Your task to perform on an android device: Open calendar and show me the fourth week of next month Image 0: 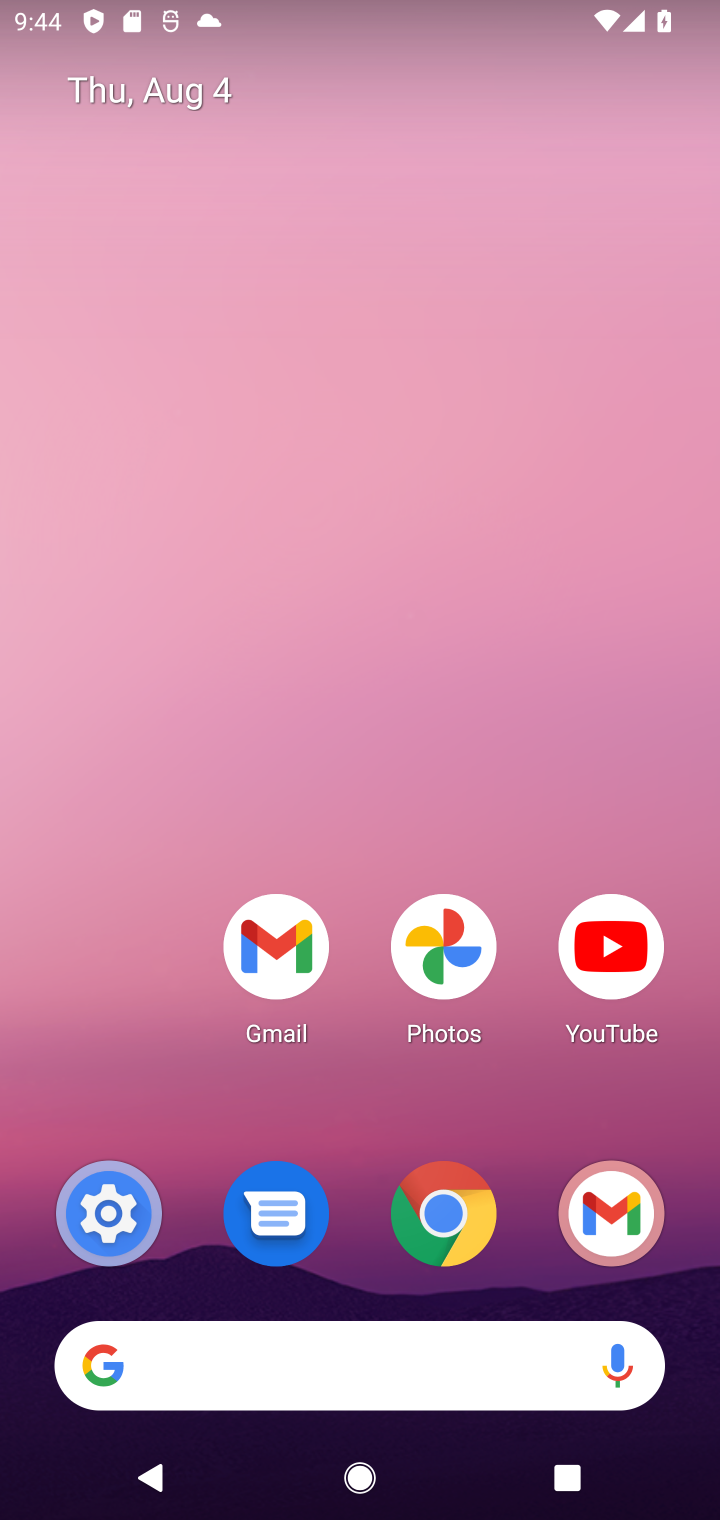
Step 0: press home button
Your task to perform on an android device: Open calendar and show me the fourth week of next month Image 1: 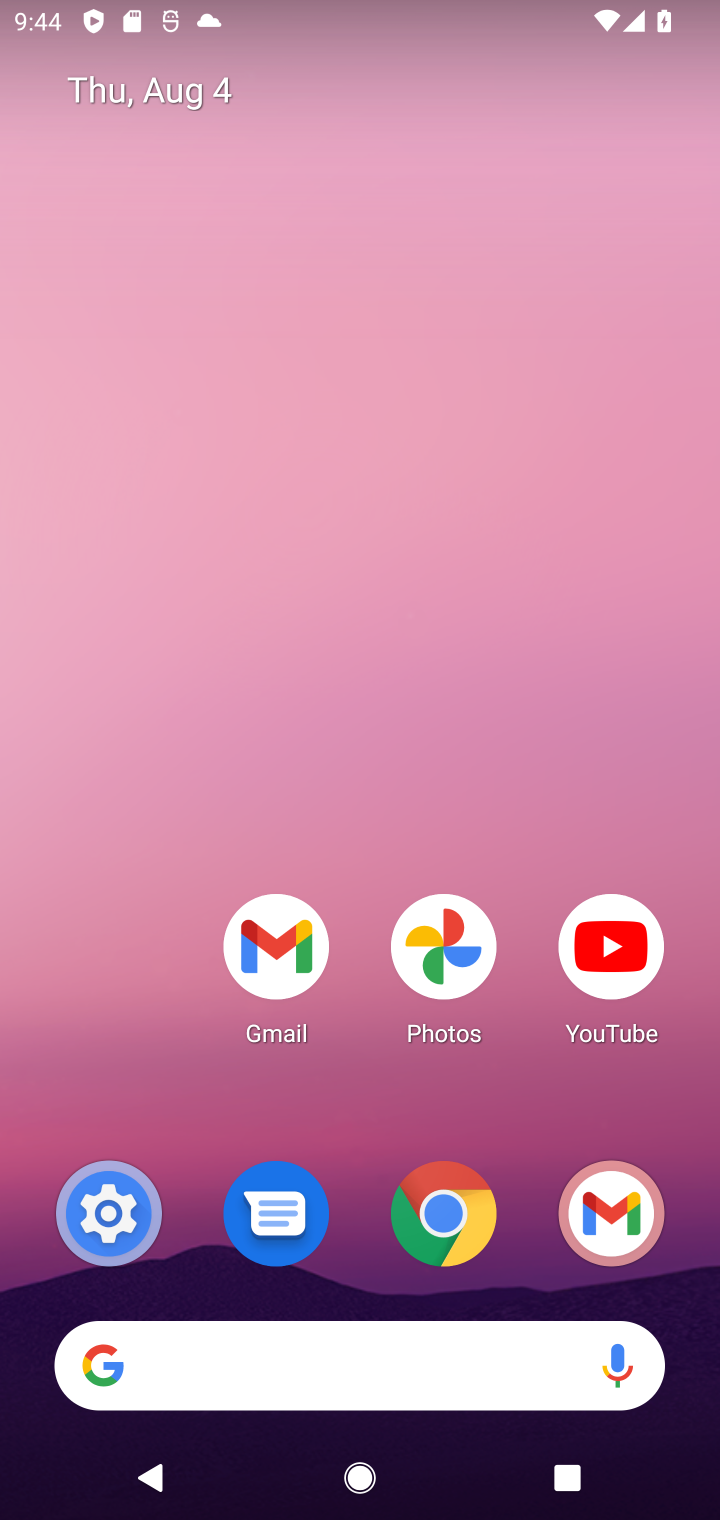
Step 1: drag from (348, 1147) to (348, 19)
Your task to perform on an android device: Open calendar and show me the fourth week of next month Image 2: 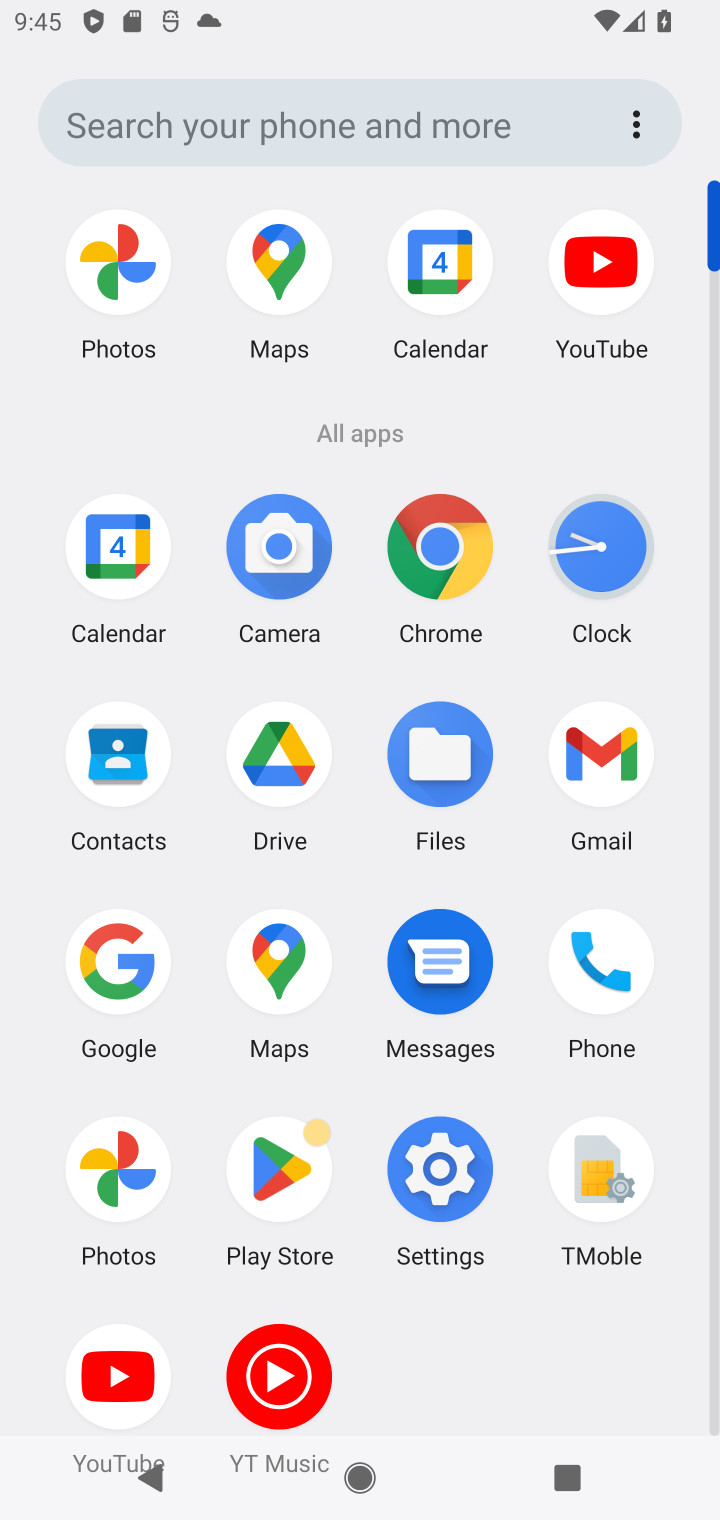
Step 2: click (101, 540)
Your task to perform on an android device: Open calendar and show me the fourth week of next month Image 3: 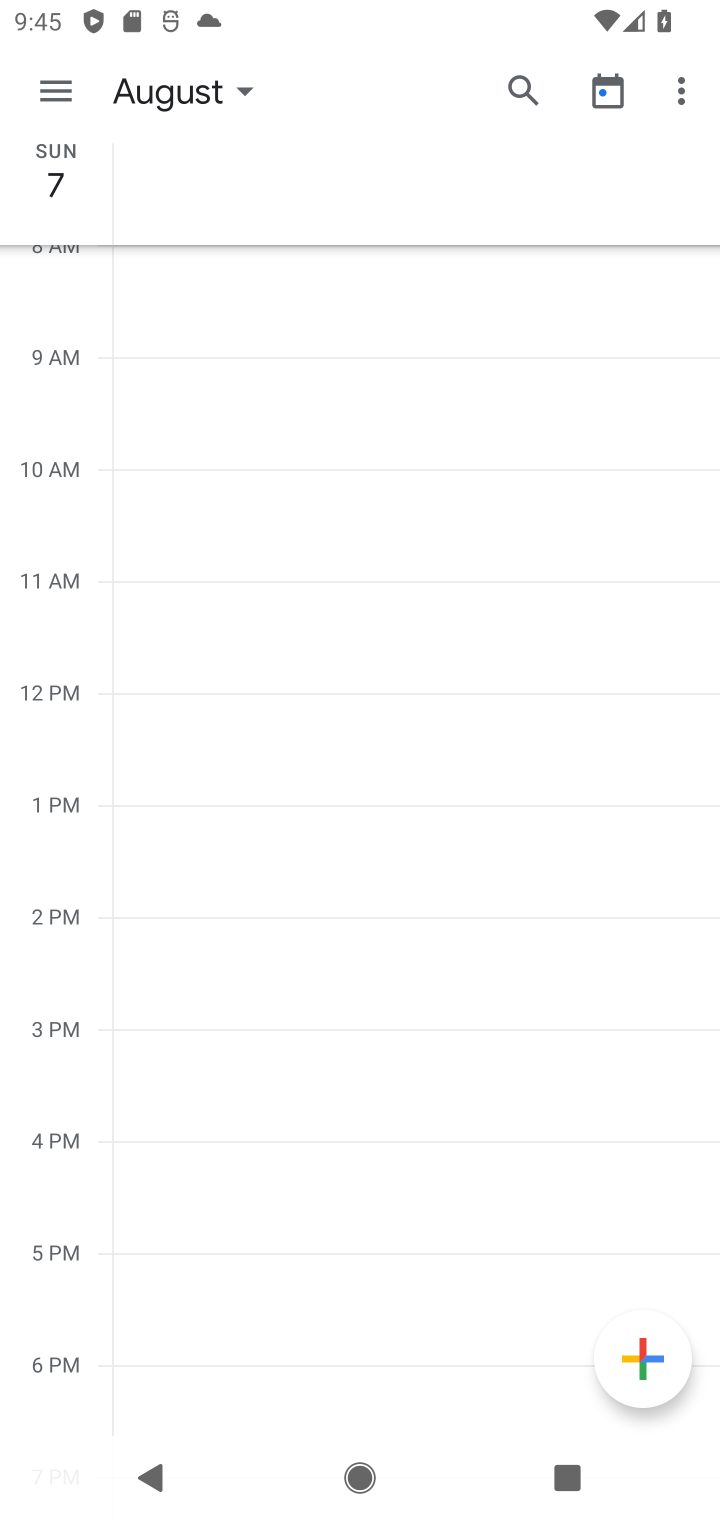
Step 3: click (234, 94)
Your task to perform on an android device: Open calendar and show me the fourth week of next month Image 4: 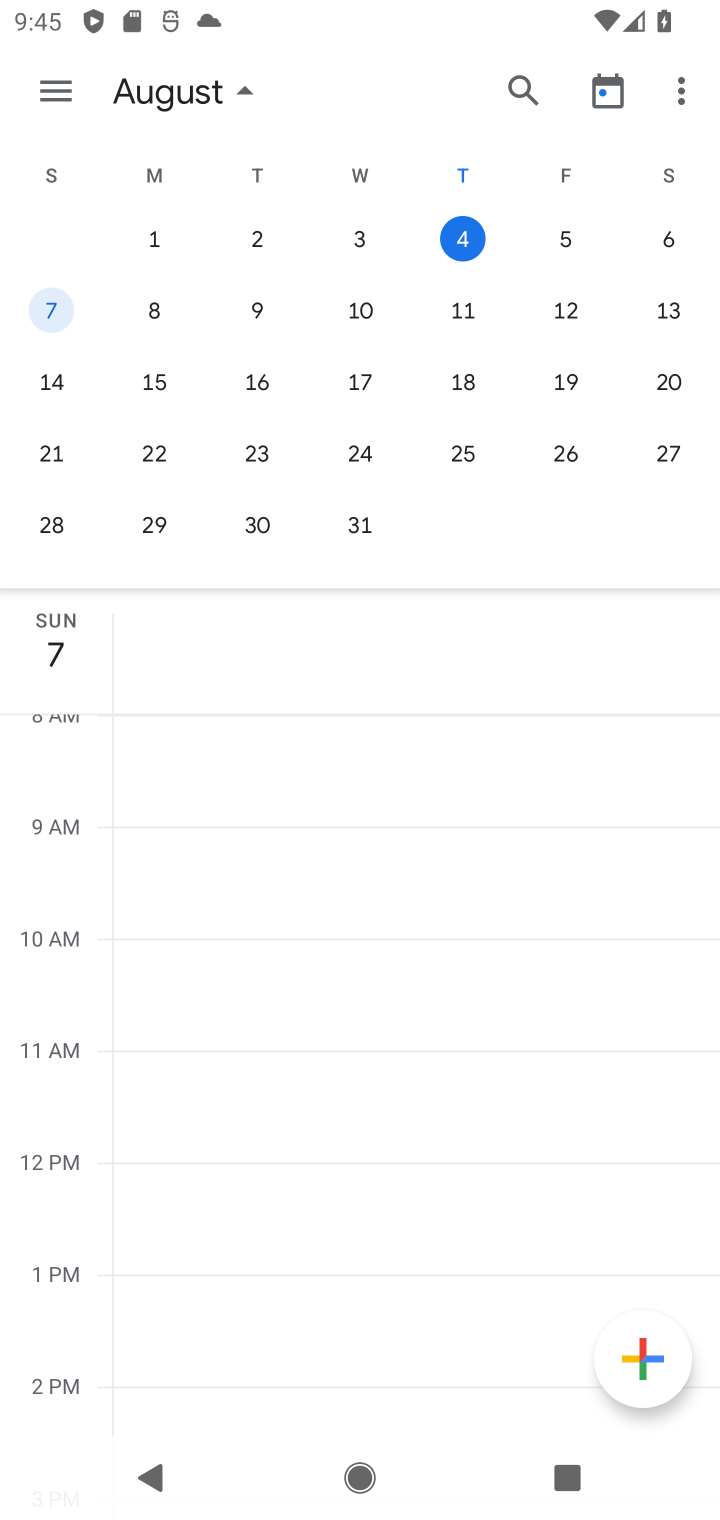
Step 4: drag from (561, 358) to (25, 236)
Your task to perform on an android device: Open calendar and show me the fourth week of next month Image 5: 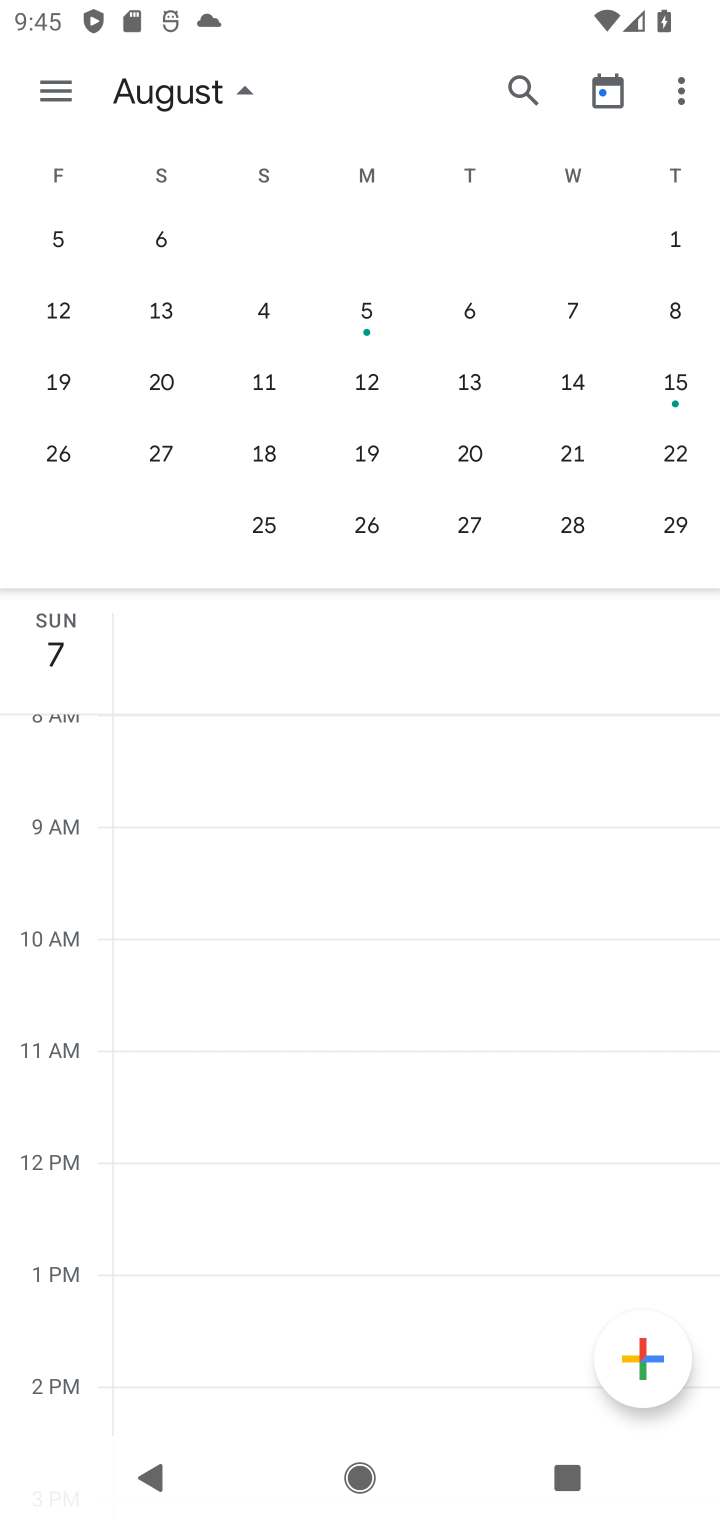
Step 5: click (55, 100)
Your task to perform on an android device: Open calendar and show me the fourth week of next month Image 6: 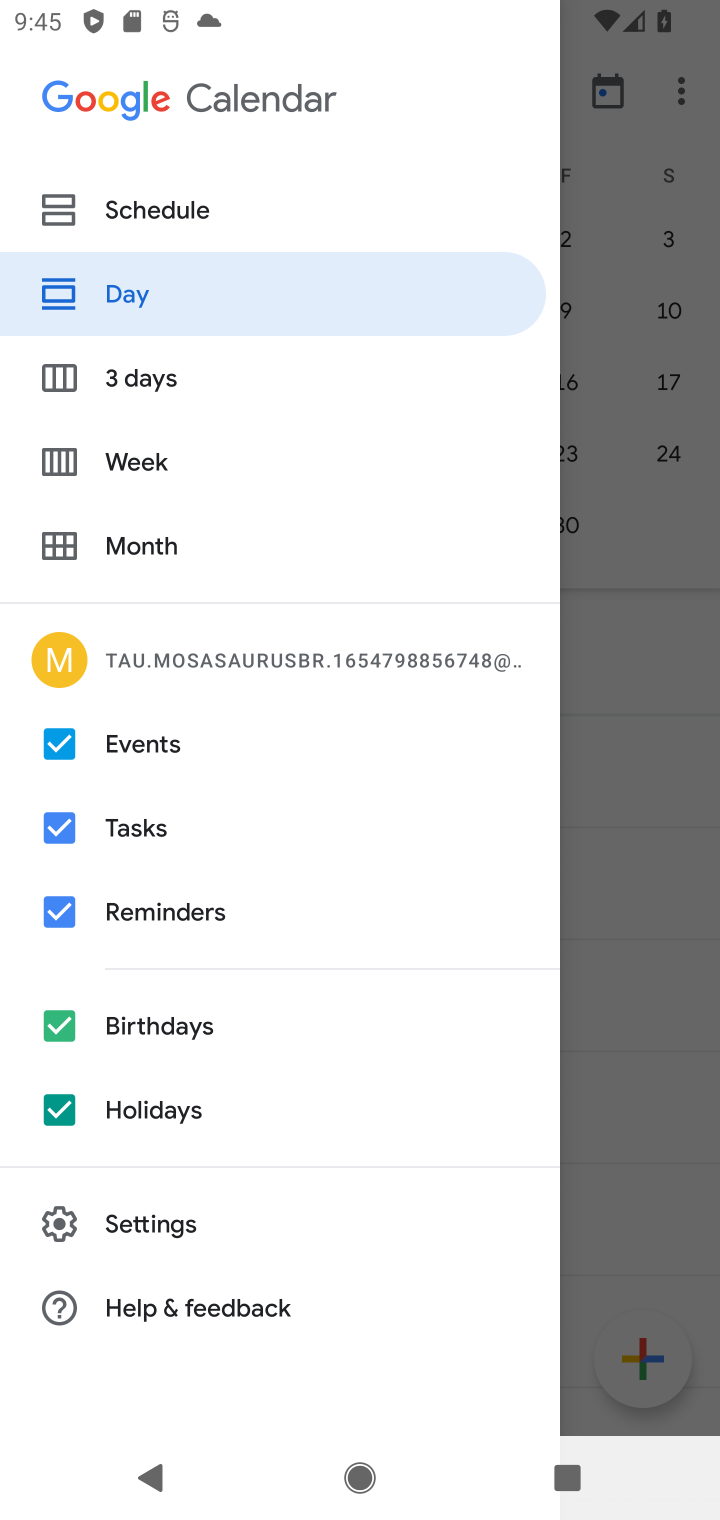
Step 6: click (132, 458)
Your task to perform on an android device: Open calendar and show me the fourth week of next month Image 7: 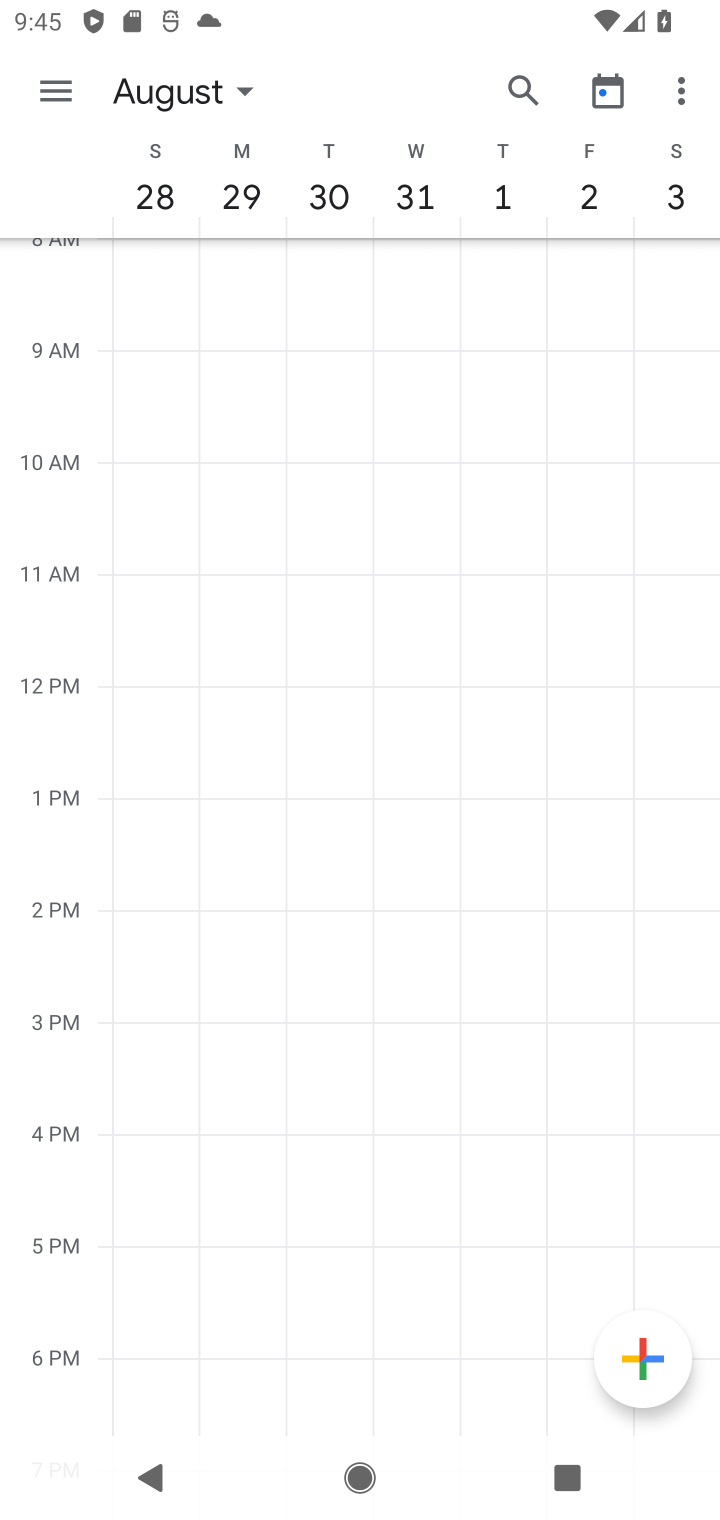
Step 7: drag from (667, 205) to (97, 202)
Your task to perform on an android device: Open calendar and show me the fourth week of next month Image 8: 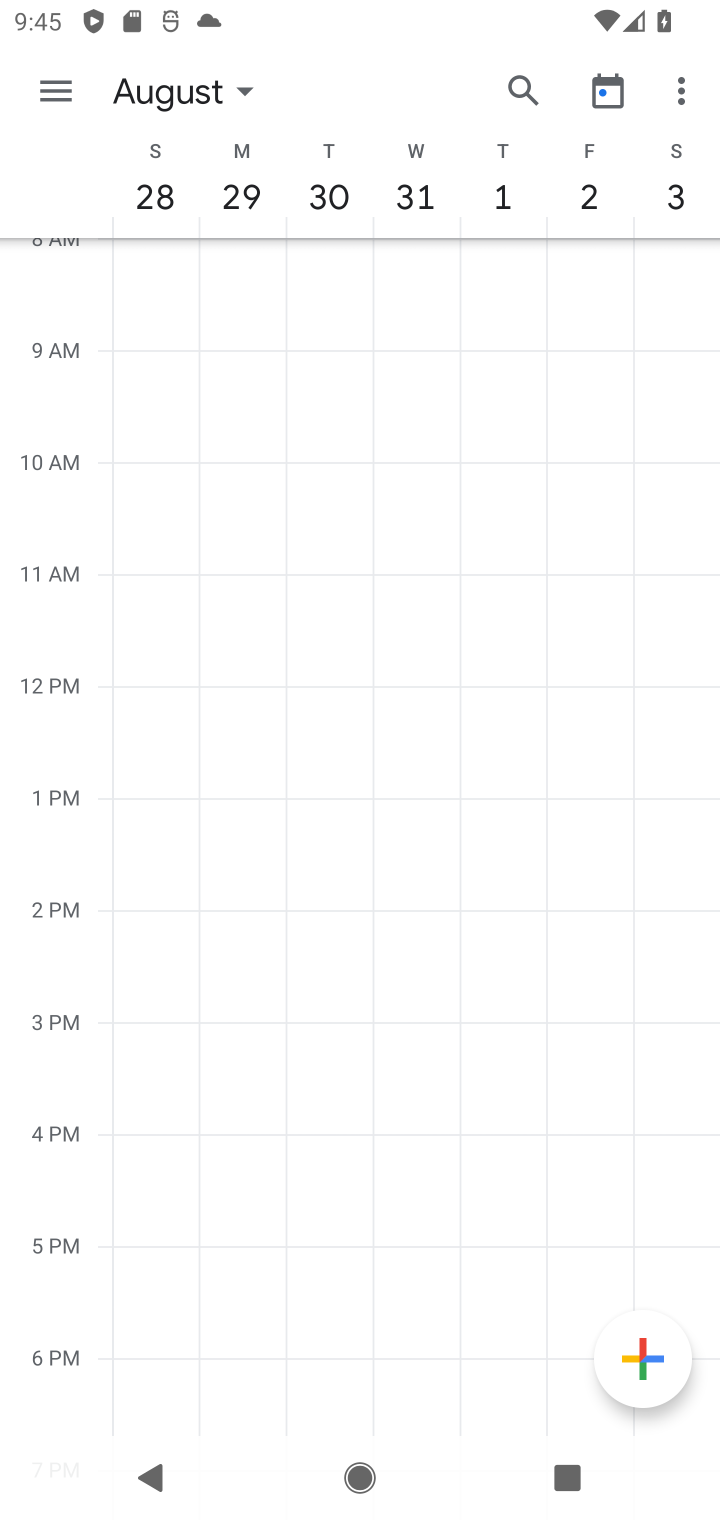
Step 8: drag from (680, 199) to (28, 195)
Your task to perform on an android device: Open calendar and show me the fourth week of next month Image 9: 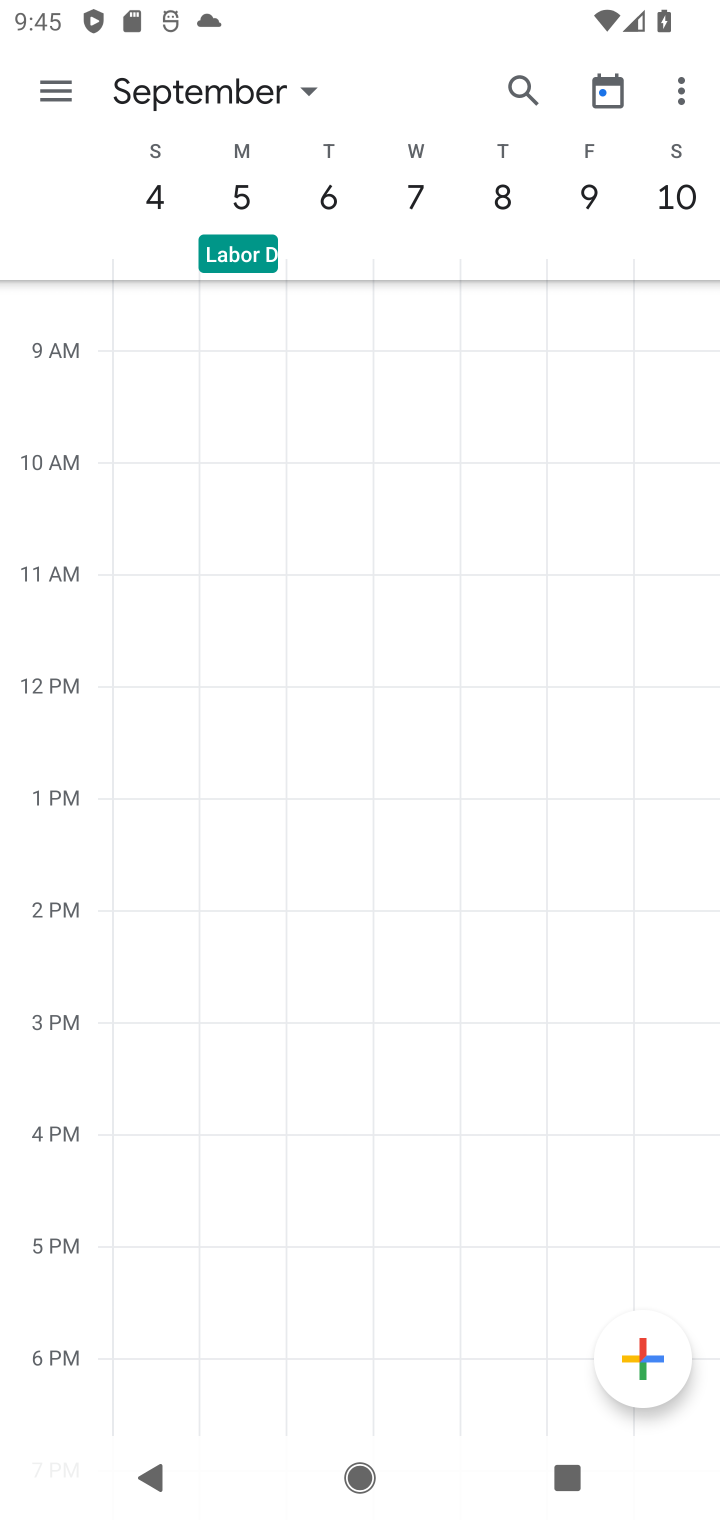
Step 9: drag from (684, 208) to (1, 215)
Your task to perform on an android device: Open calendar and show me the fourth week of next month Image 10: 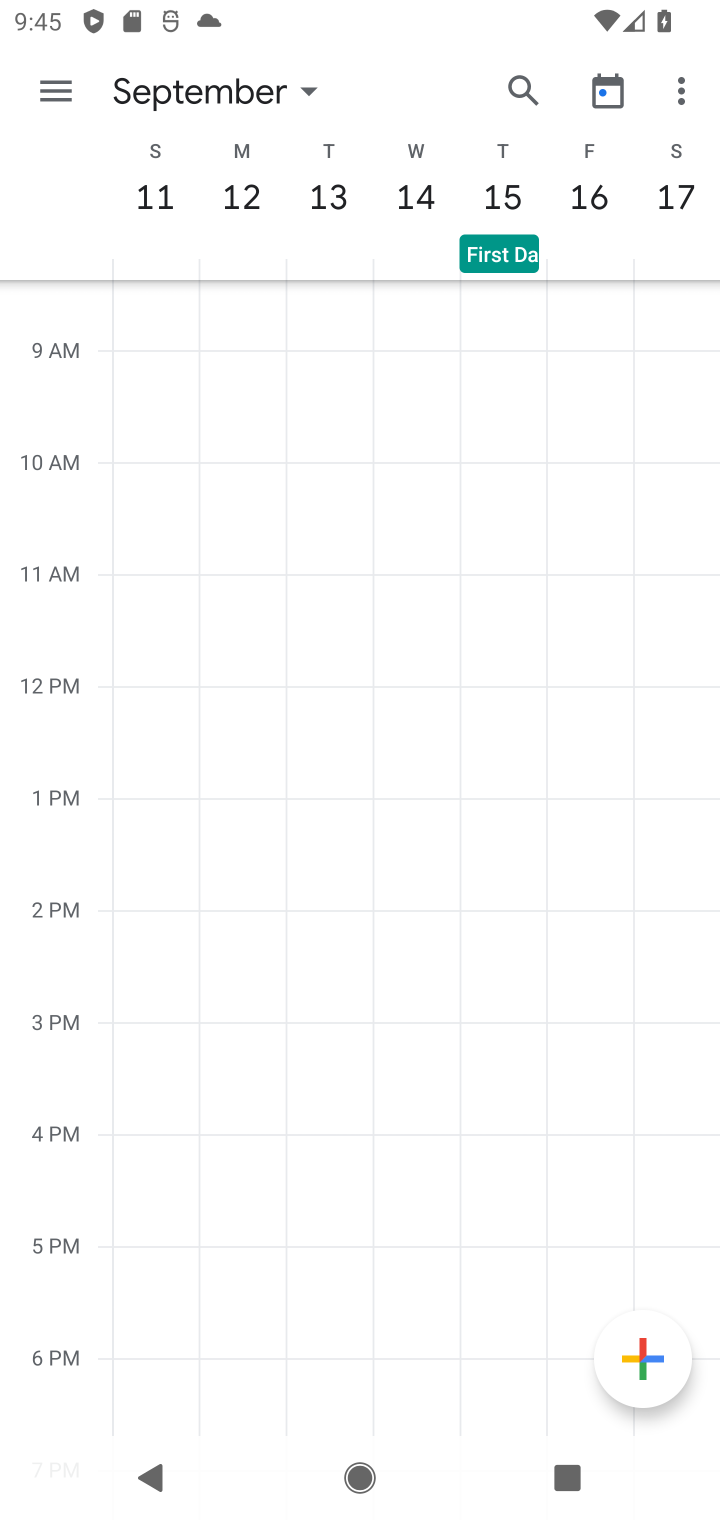
Step 10: drag from (670, 193) to (7, 199)
Your task to perform on an android device: Open calendar and show me the fourth week of next month Image 11: 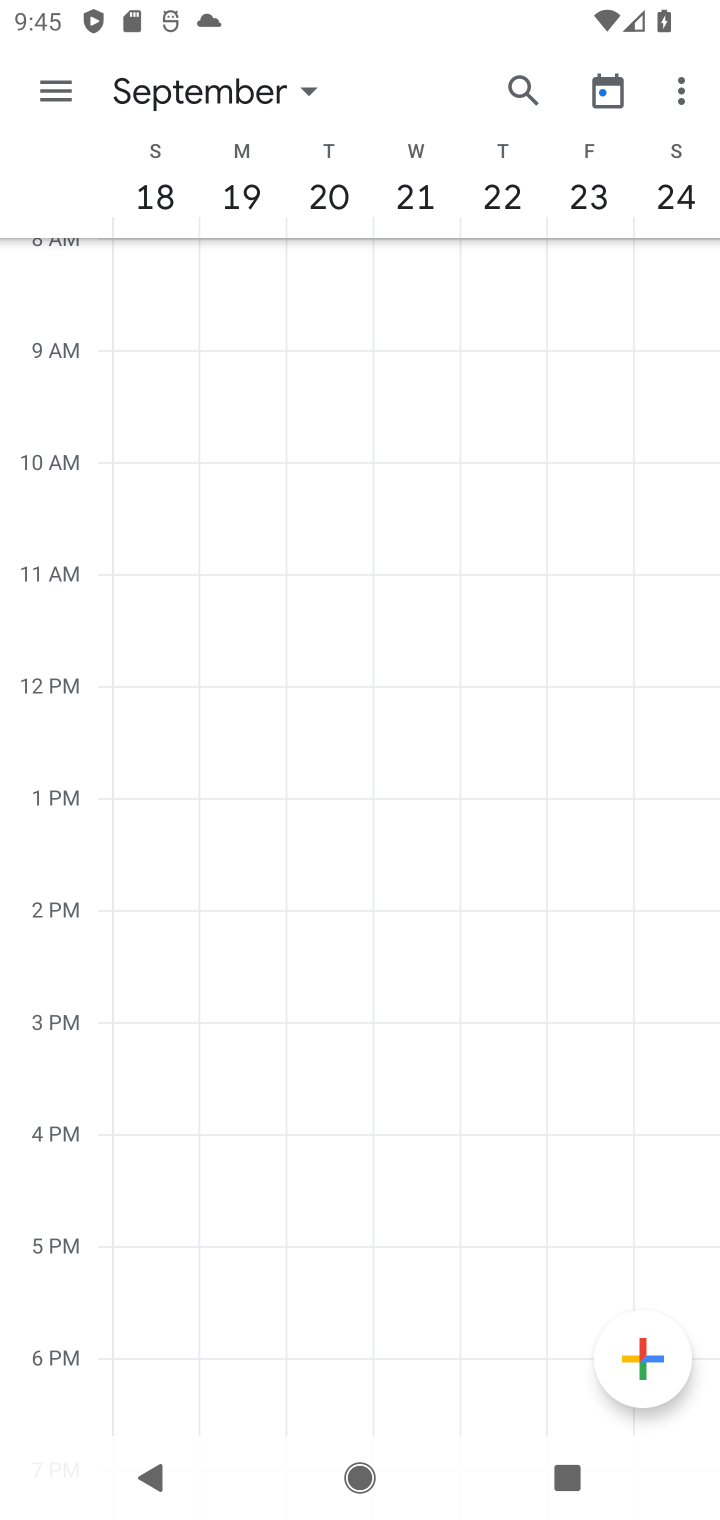
Step 11: drag from (671, 201) to (54, 188)
Your task to perform on an android device: Open calendar and show me the fourth week of next month Image 12: 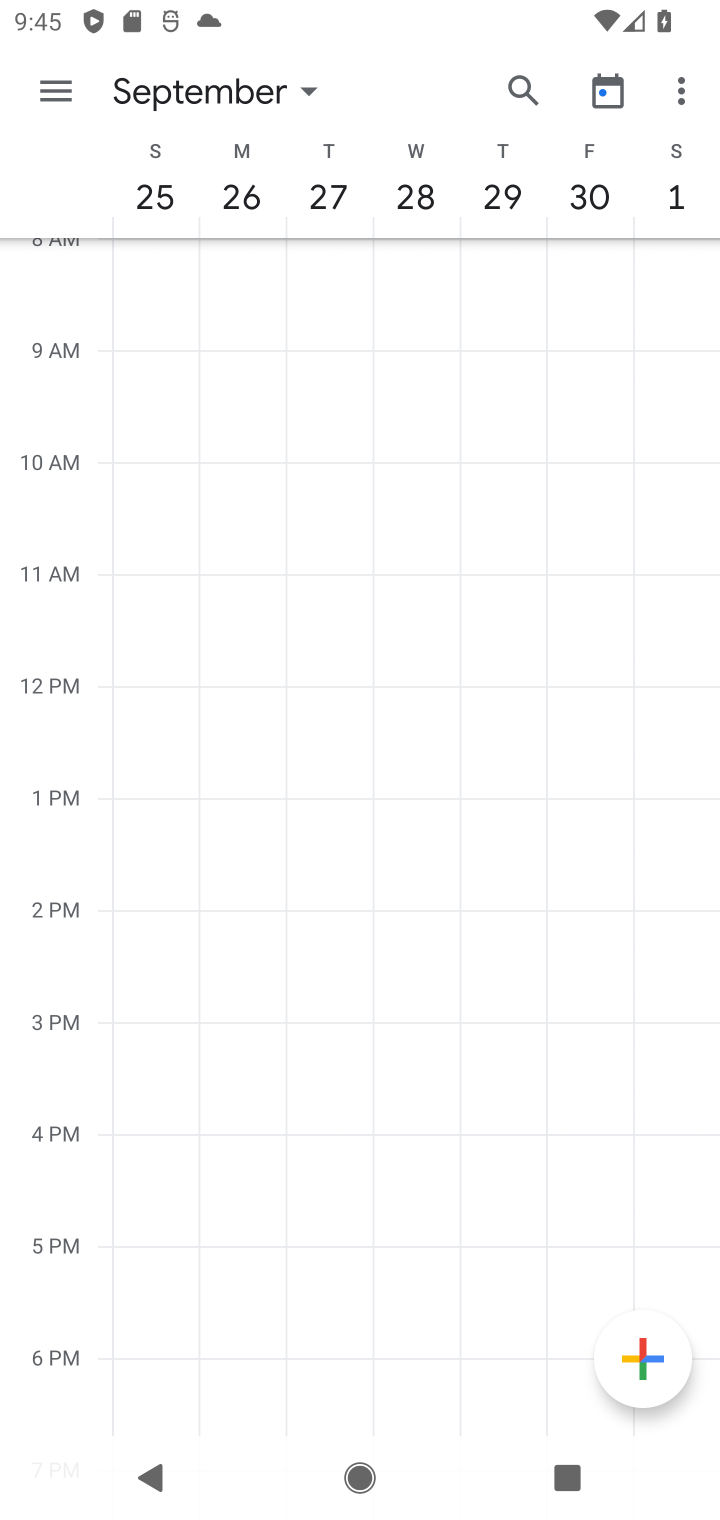
Step 12: click (156, 188)
Your task to perform on an android device: Open calendar and show me the fourth week of next month Image 13: 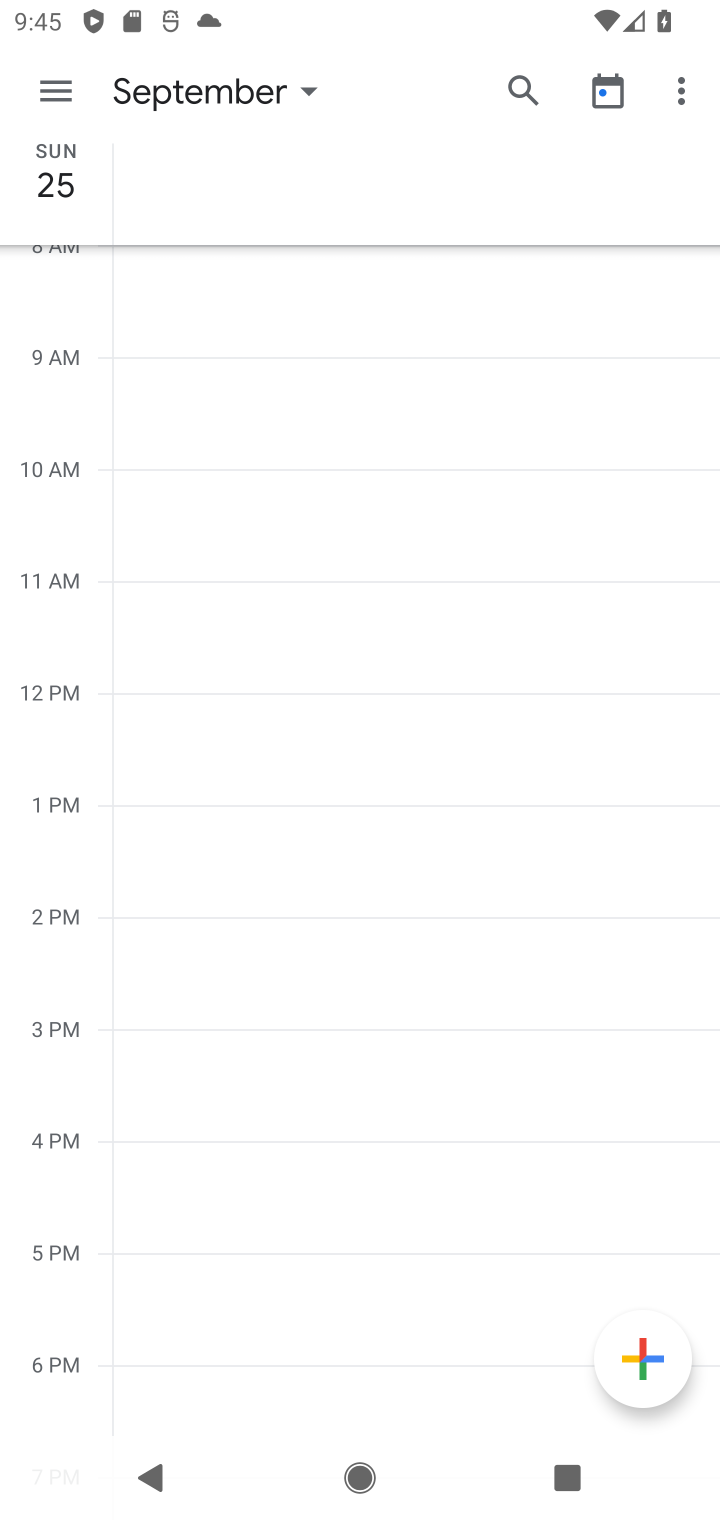
Step 13: click (78, 184)
Your task to perform on an android device: Open calendar and show me the fourth week of next month Image 14: 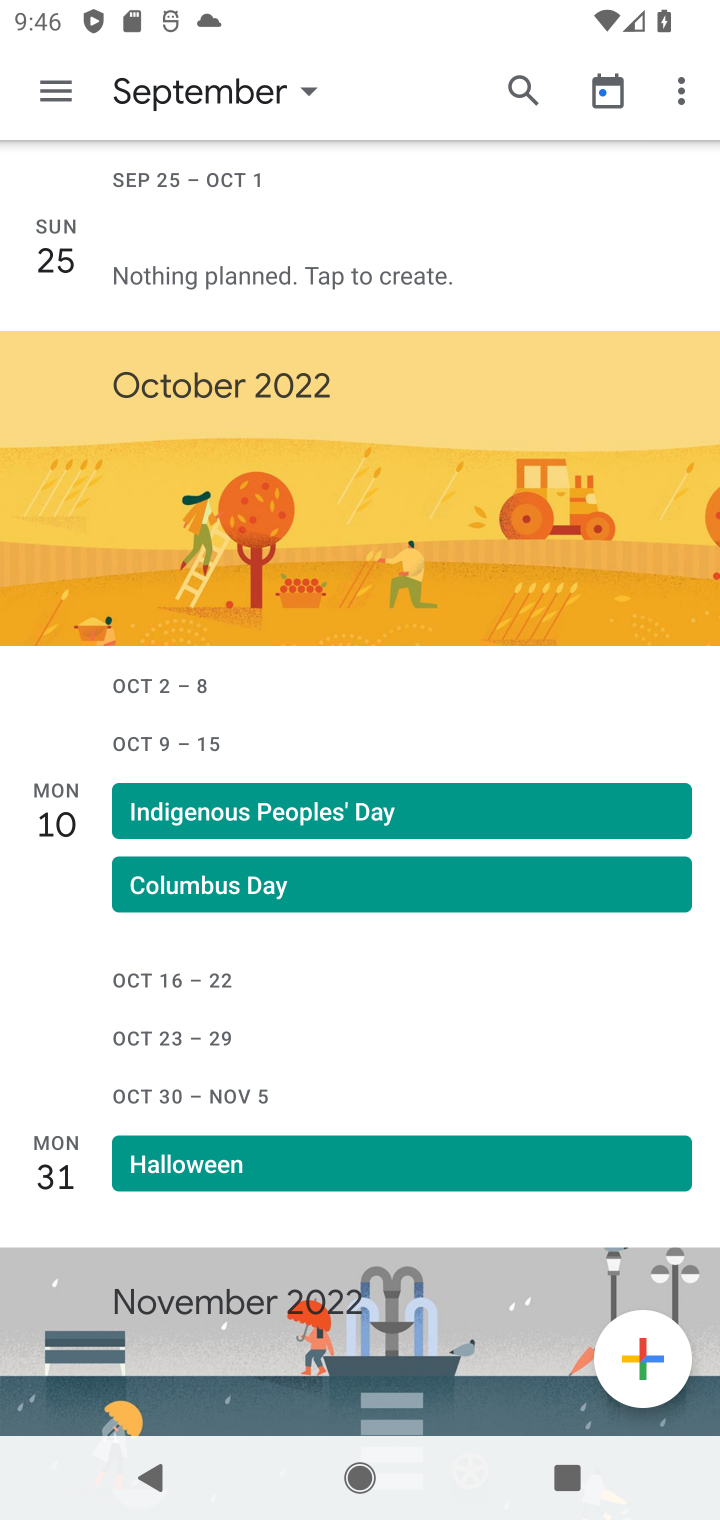
Step 14: task complete